Your task to perform on an android device: toggle notification dots Image 0: 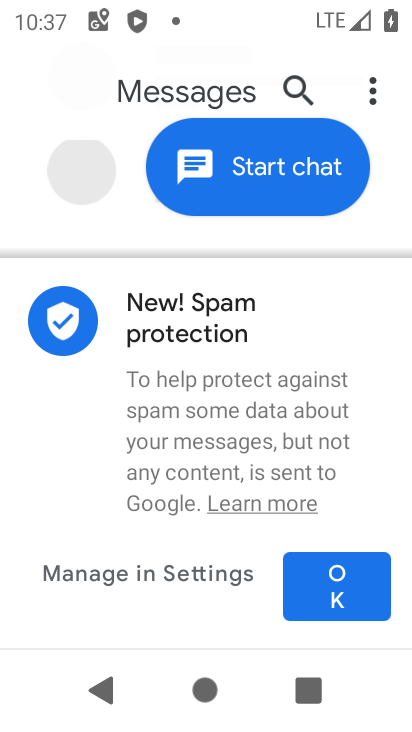
Step 0: press home button
Your task to perform on an android device: toggle notification dots Image 1: 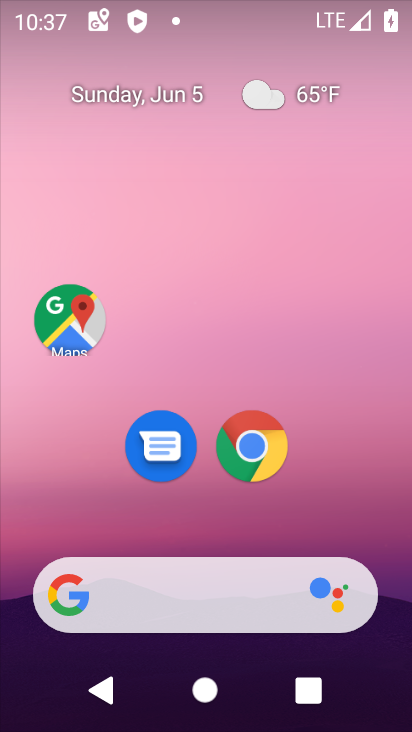
Step 1: drag from (244, 547) to (197, 162)
Your task to perform on an android device: toggle notification dots Image 2: 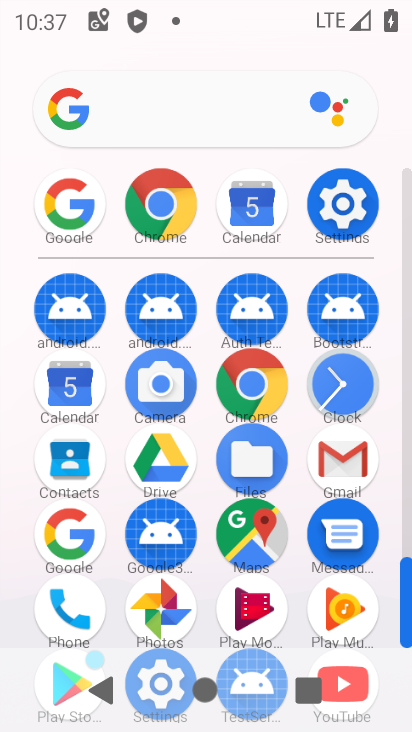
Step 2: click (346, 207)
Your task to perform on an android device: toggle notification dots Image 3: 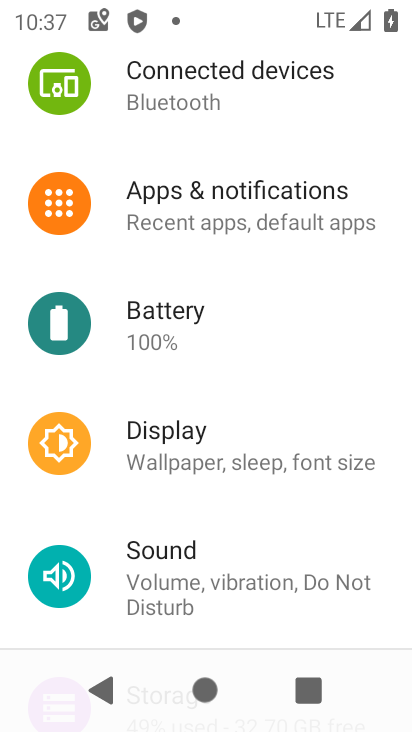
Step 3: click (215, 206)
Your task to perform on an android device: toggle notification dots Image 4: 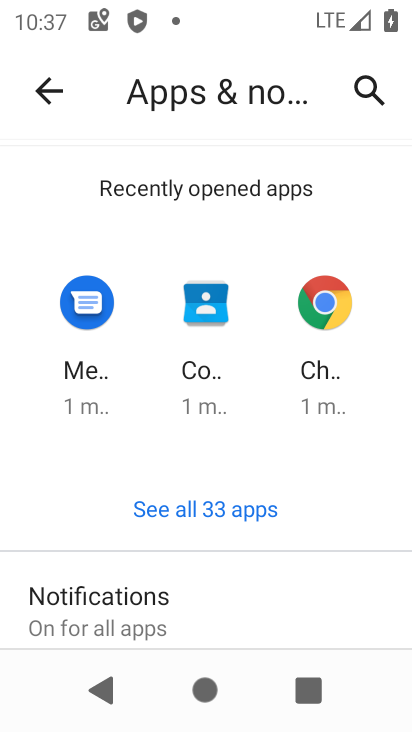
Step 4: click (140, 625)
Your task to perform on an android device: toggle notification dots Image 5: 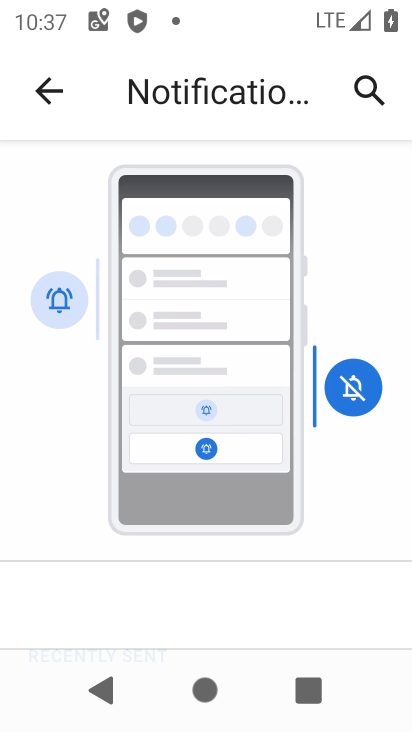
Step 5: drag from (213, 591) to (236, 247)
Your task to perform on an android device: toggle notification dots Image 6: 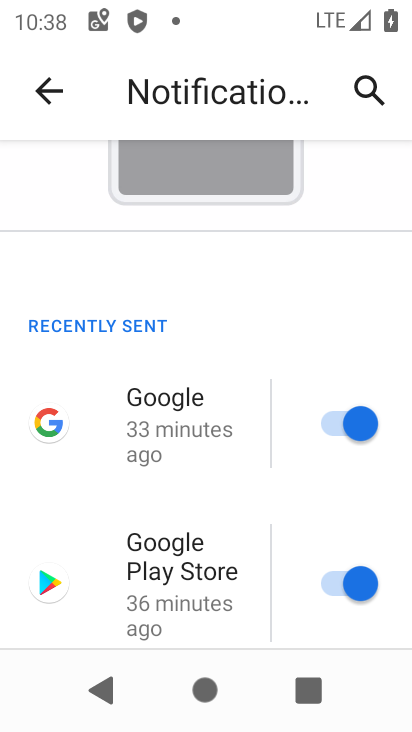
Step 6: drag from (243, 495) to (252, 142)
Your task to perform on an android device: toggle notification dots Image 7: 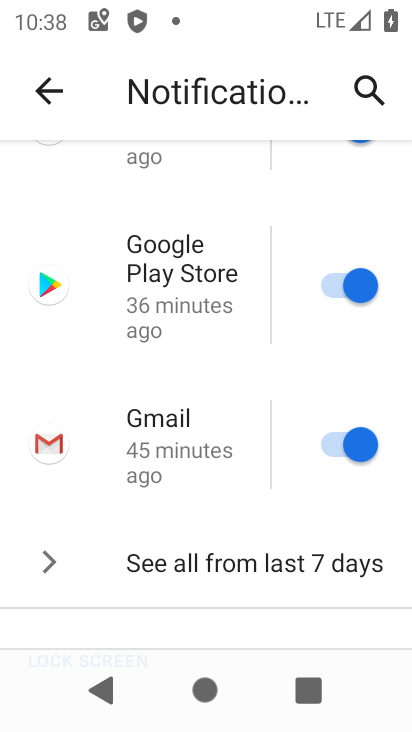
Step 7: drag from (205, 527) to (227, 249)
Your task to perform on an android device: toggle notification dots Image 8: 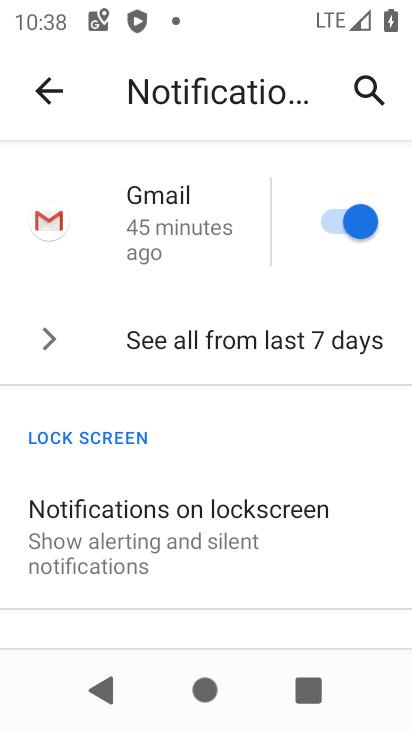
Step 8: drag from (167, 566) to (207, 323)
Your task to perform on an android device: toggle notification dots Image 9: 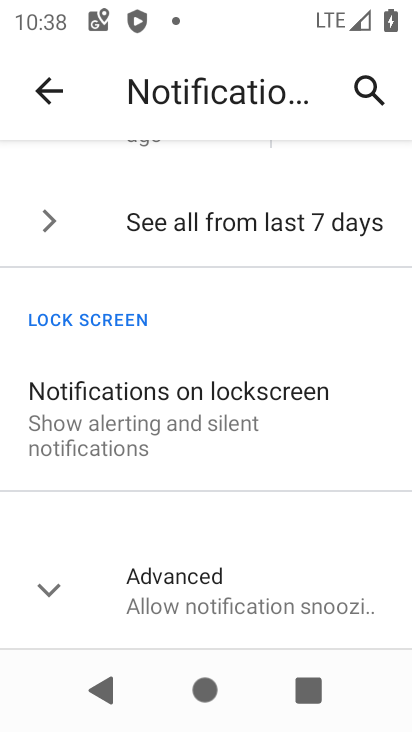
Step 9: click (155, 608)
Your task to perform on an android device: toggle notification dots Image 10: 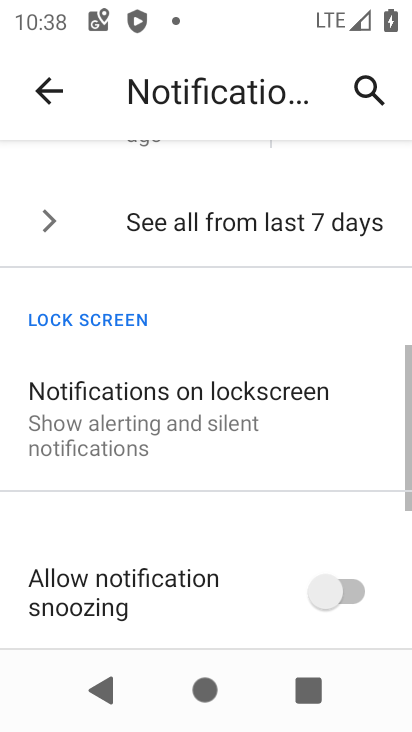
Step 10: drag from (177, 592) to (274, 193)
Your task to perform on an android device: toggle notification dots Image 11: 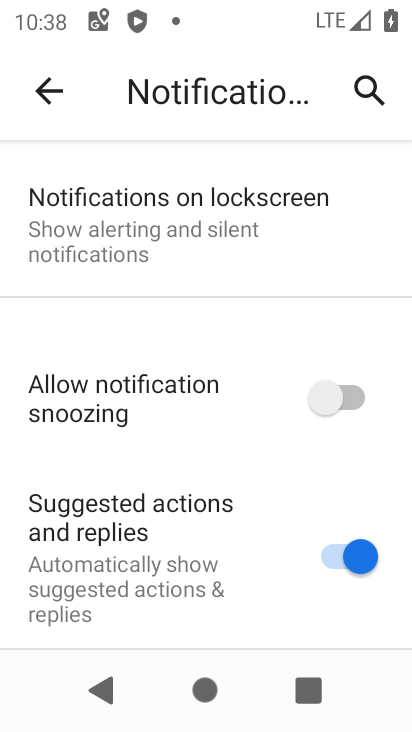
Step 11: drag from (228, 559) to (307, 164)
Your task to perform on an android device: toggle notification dots Image 12: 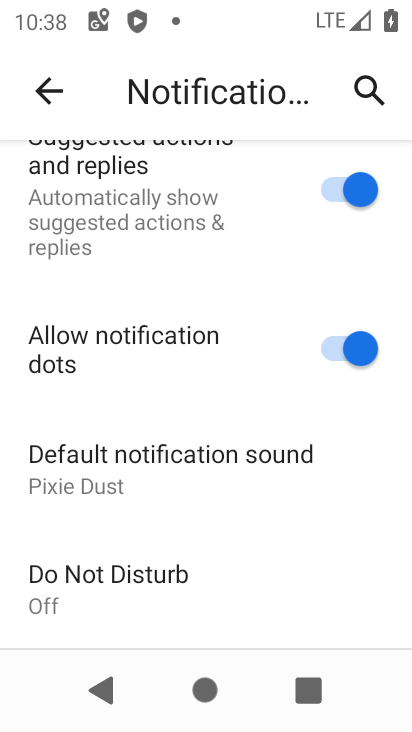
Step 12: drag from (251, 520) to (255, 168)
Your task to perform on an android device: toggle notification dots Image 13: 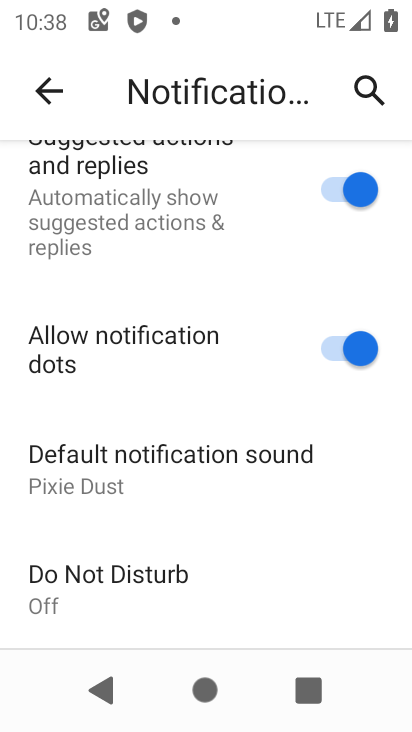
Step 13: click (341, 345)
Your task to perform on an android device: toggle notification dots Image 14: 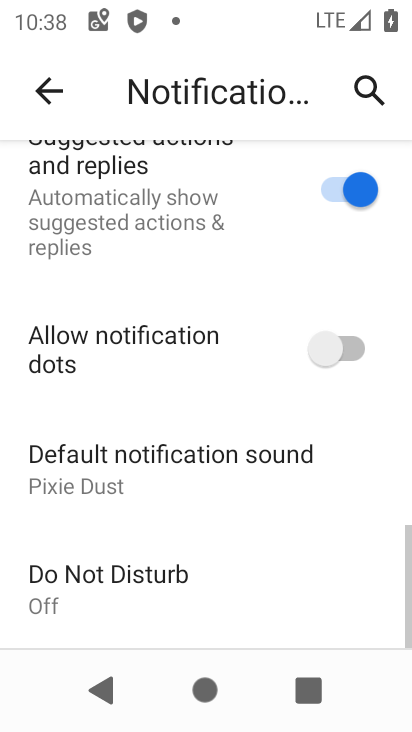
Step 14: task complete